Your task to perform on an android device: toggle javascript in the chrome app Image 0: 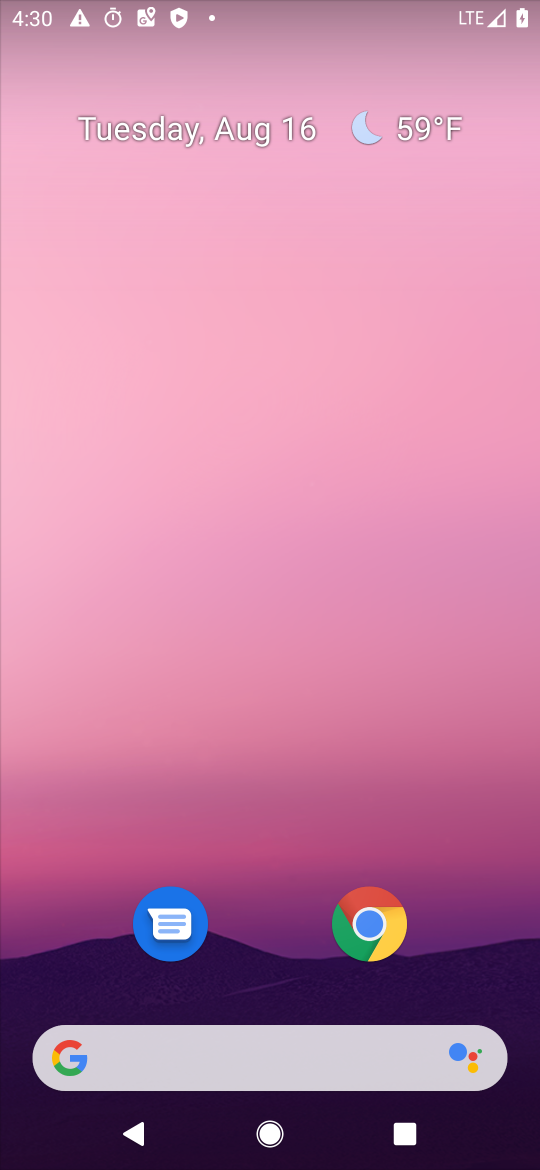
Step 0: click (381, 934)
Your task to perform on an android device: toggle javascript in the chrome app Image 1: 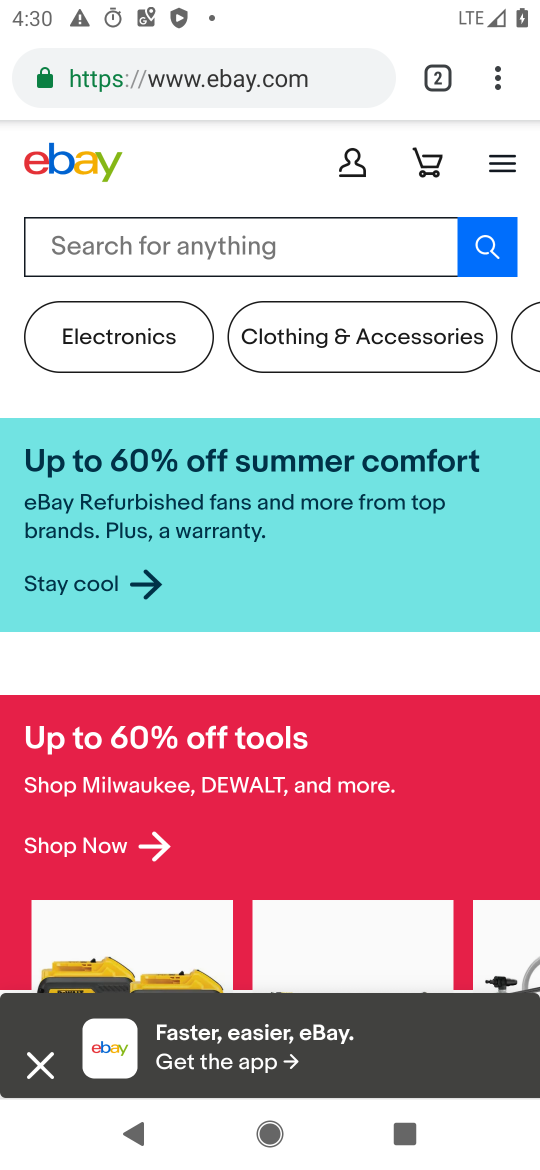
Step 1: click (519, 77)
Your task to perform on an android device: toggle javascript in the chrome app Image 2: 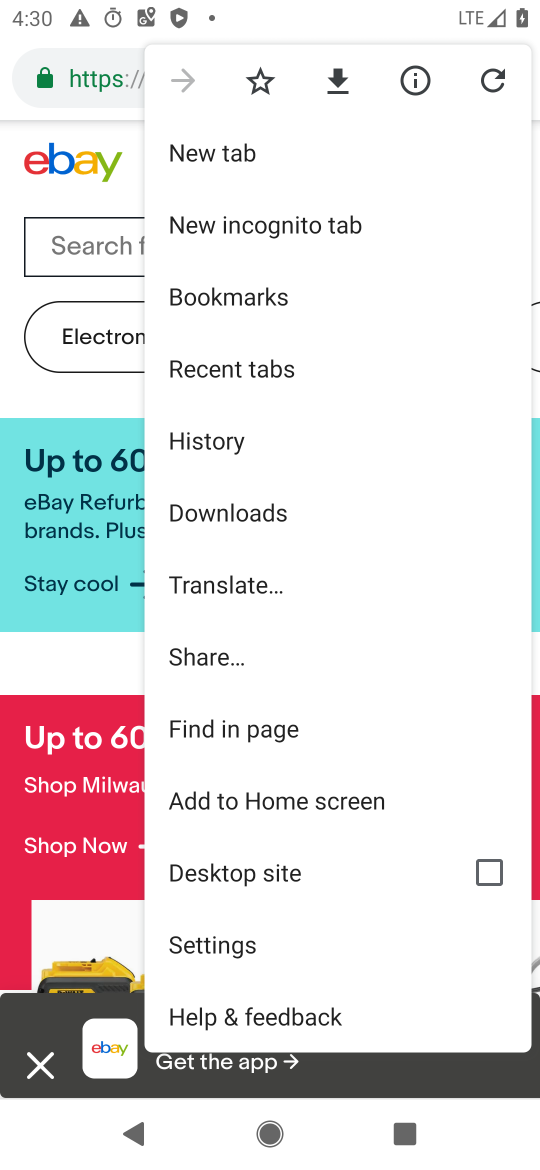
Step 2: click (264, 942)
Your task to perform on an android device: toggle javascript in the chrome app Image 3: 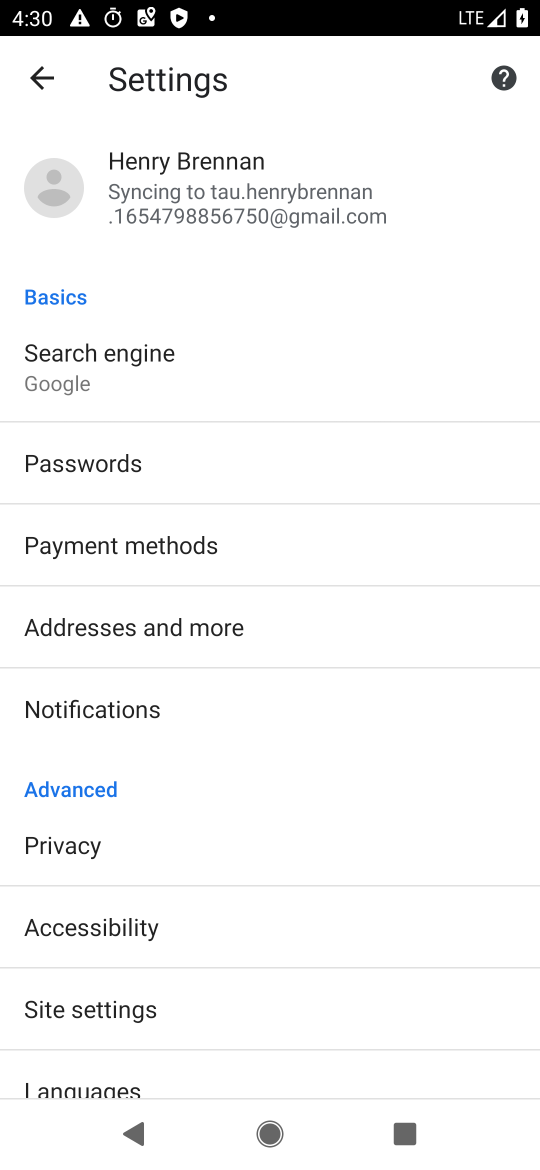
Step 3: drag from (127, 1065) to (251, 194)
Your task to perform on an android device: toggle javascript in the chrome app Image 4: 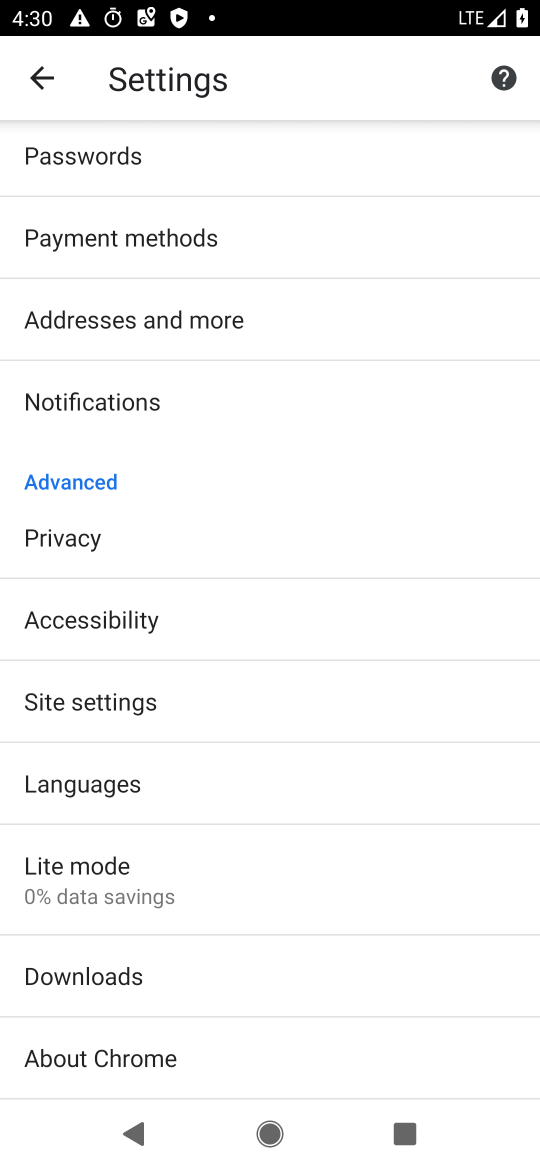
Step 4: click (138, 704)
Your task to perform on an android device: toggle javascript in the chrome app Image 5: 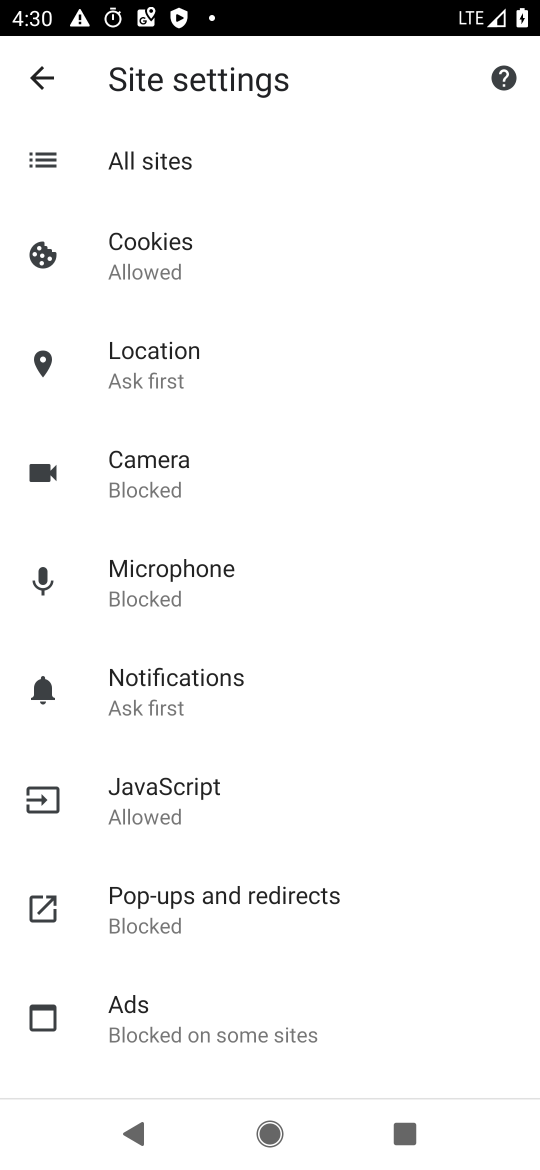
Step 5: click (226, 799)
Your task to perform on an android device: toggle javascript in the chrome app Image 6: 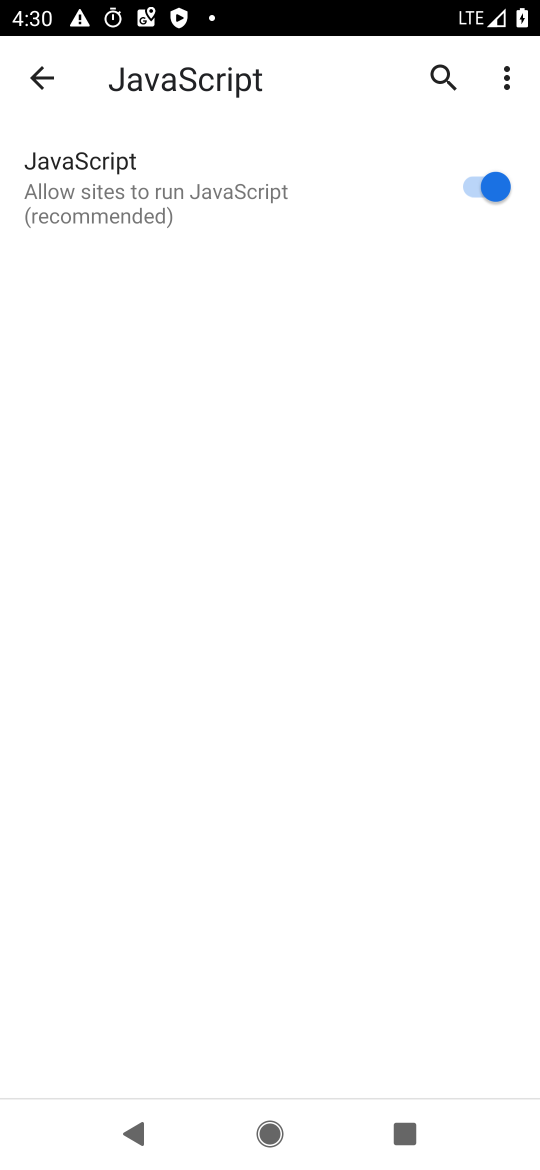
Step 6: click (497, 177)
Your task to perform on an android device: toggle javascript in the chrome app Image 7: 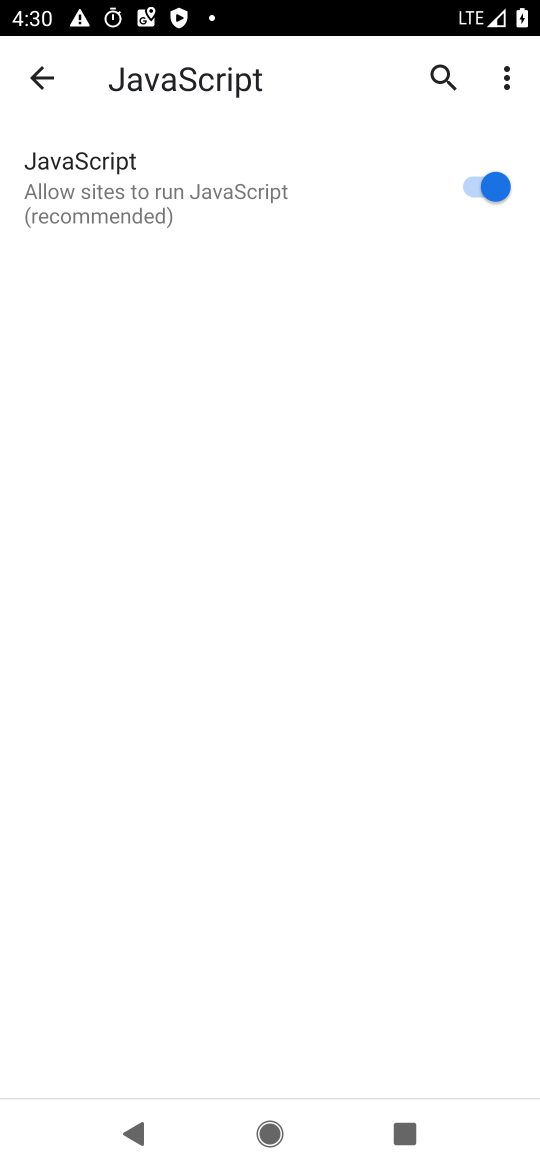
Step 7: click (497, 177)
Your task to perform on an android device: toggle javascript in the chrome app Image 8: 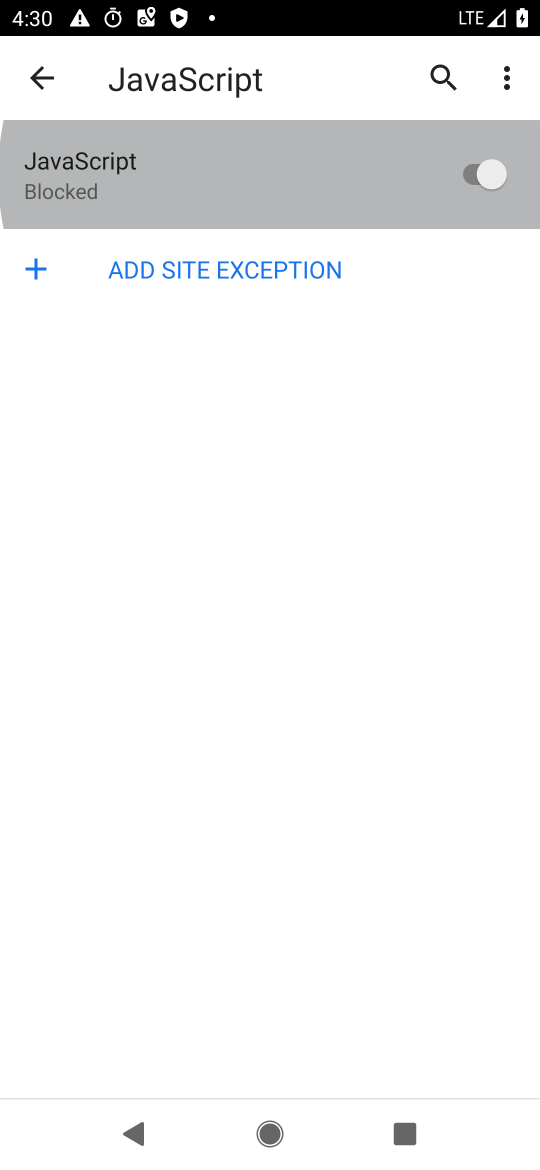
Step 8: click (497, 177)
Your task to perform on an android device: toggle javascript in the chrome app Image 9: 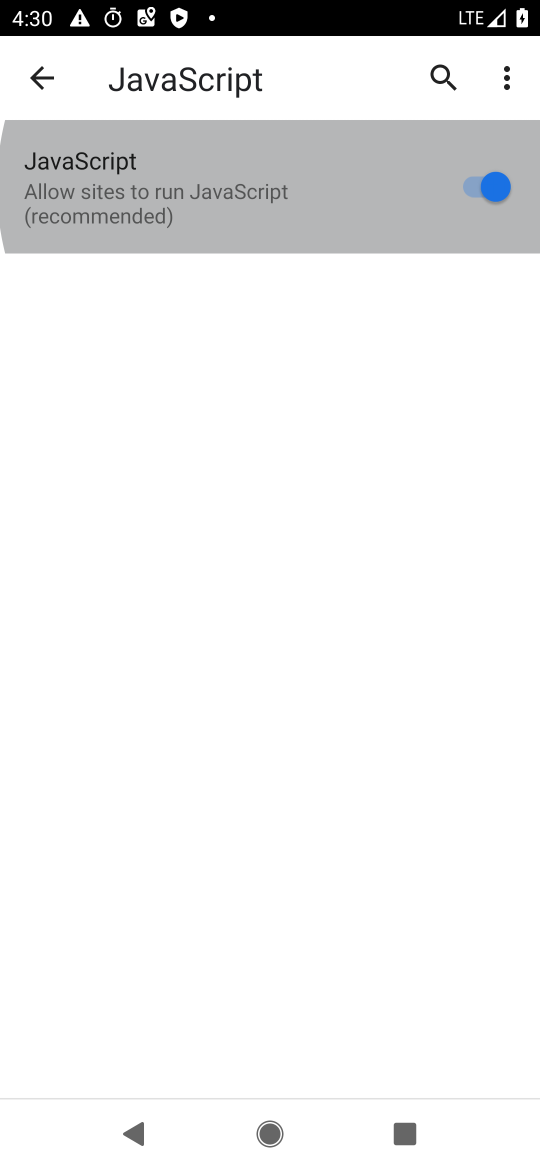
Step 9: click (497, 177)
Your task to perform on an android device: toggle javascript in the chrome app Image 10: 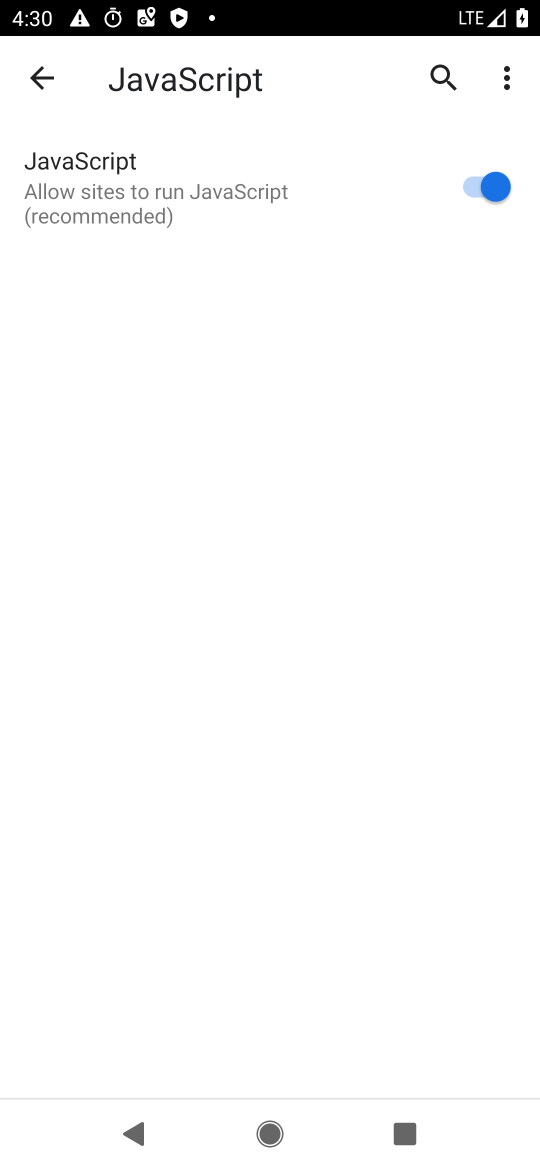
Step 10: task complete